Your task to perform on an android device: change the clock display to digital Image 0: 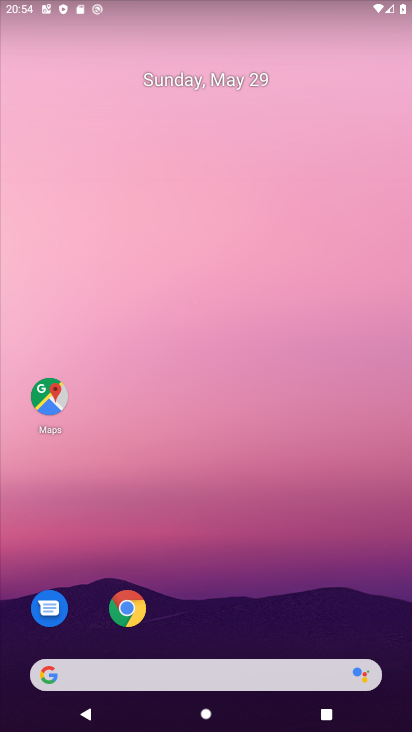
Step 0: drag from (365, 604) to (343, 249)
Your task to perform on an android device: change the clock display to digital Image 1: 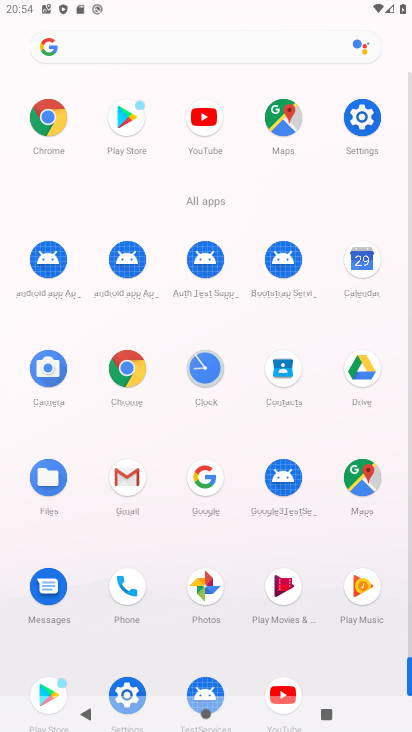
Step 1: click (201, 379)
Your task to perform on an android device: change the clock display to digital Image 2: 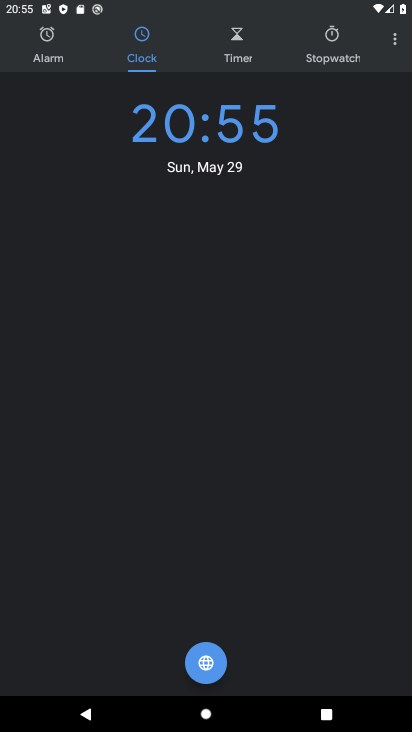
Step 2: click (396, 49)
Your task to perform on an android device: change the clock display to digital Image 3: 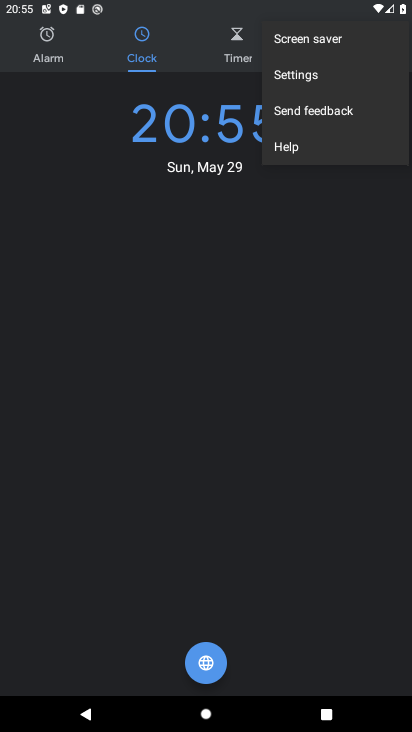
Step 3: click (342, 71)
Your task to perform on an android device: change the clock display to digital Image 4: 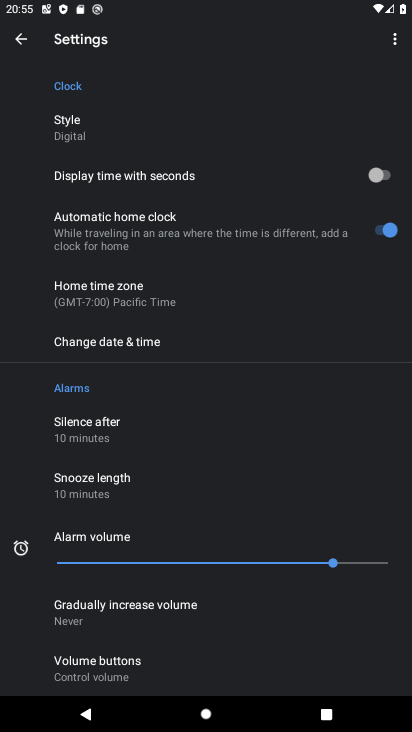
Step 4: drag from (299, 140) to (291, 326)
Your task to perform on an android device: change the clock display to digital Image 5: 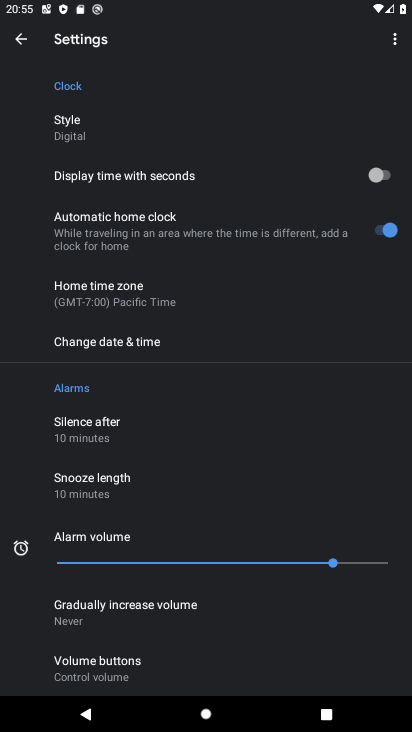
Step 5: click (71, 136)
Your task to perform on an android device: change the clock display to digital Image 6: 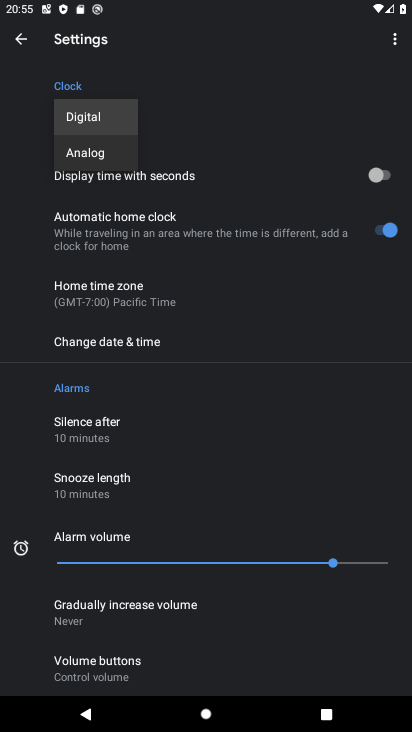
Step 6: click (128, 120)
Your task to perform on an android device: change the clock display to digital Image 7: 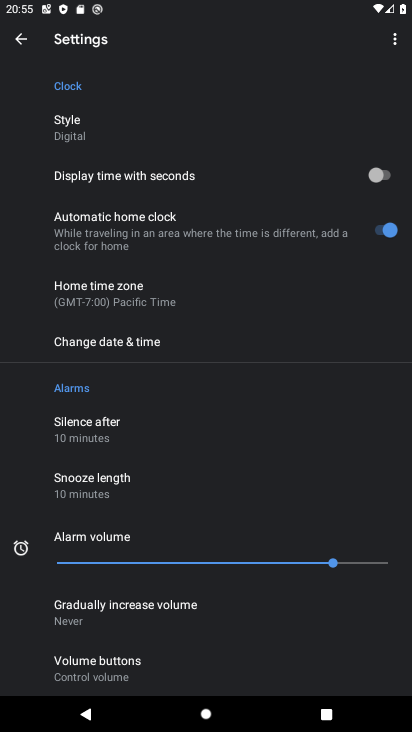
Step 7: task complete